Your task to perform on an android device: turn off wifi Image 0: 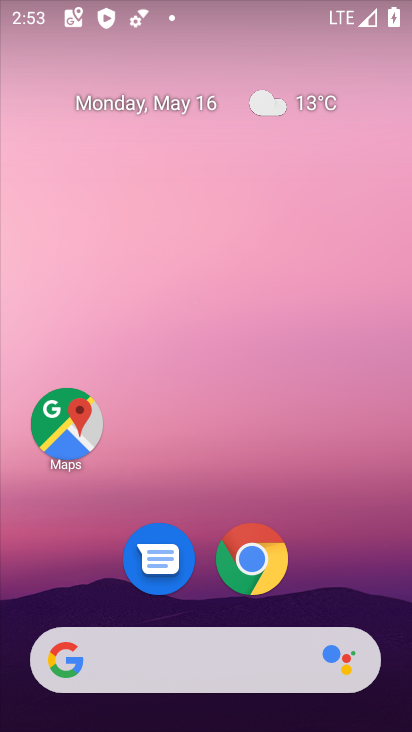
Step 0: drag from (65, 19) to (210, 623)
Your task to perform on an android device: turn off wifi Image 1: 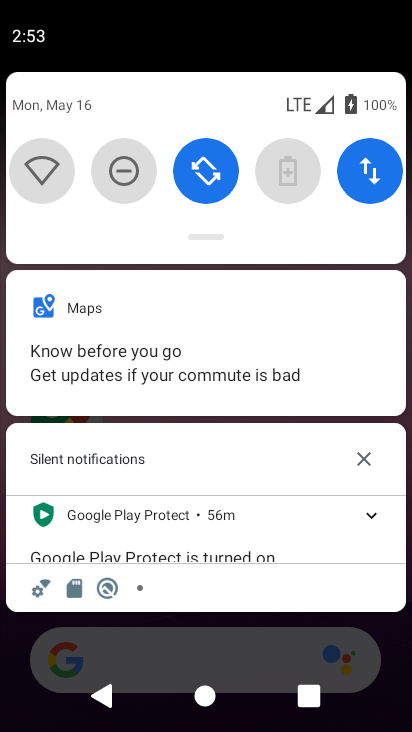
Step 1: task complete